Your task to perform on an android device: stop showing notifications on the lock screen Image 0: 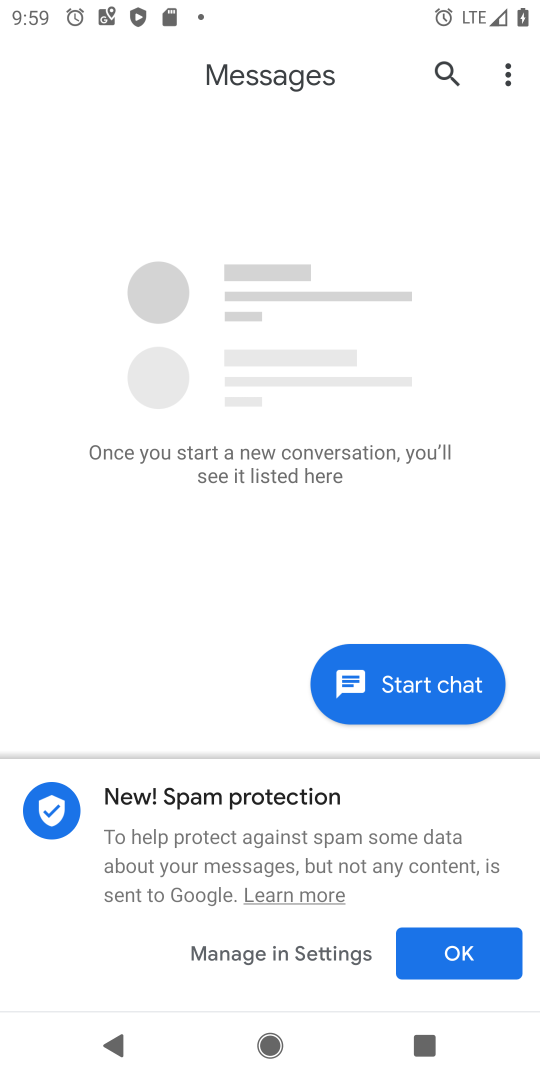
Step 0: press home button
Your task to perform on an android device: stop showing notifications on the lock screen Image 1: 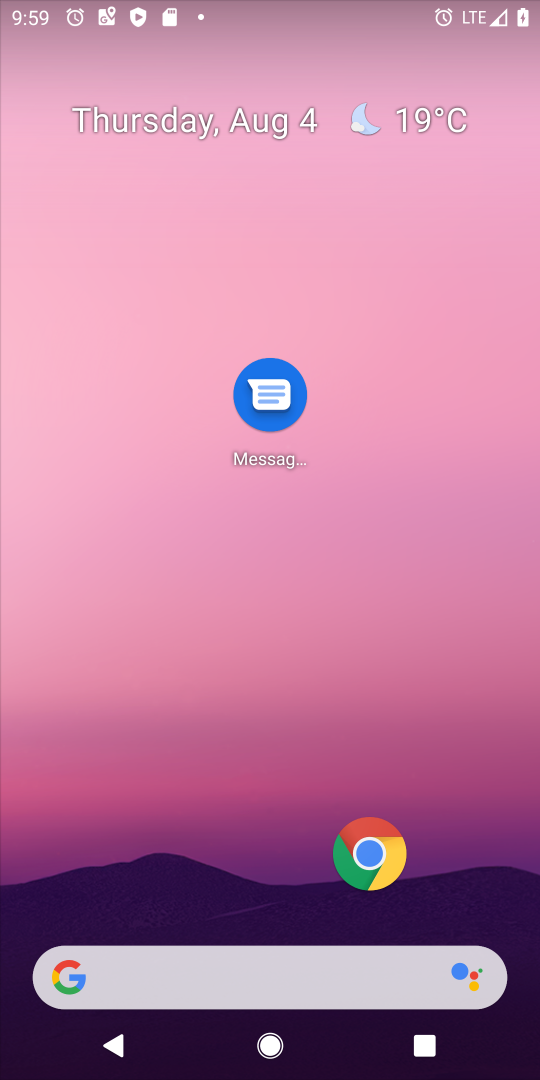
Step 1: drag from (197, 945) to (112, 197)
Your task to perform on an android device: stop showing notifications on the lock screen Image 2: 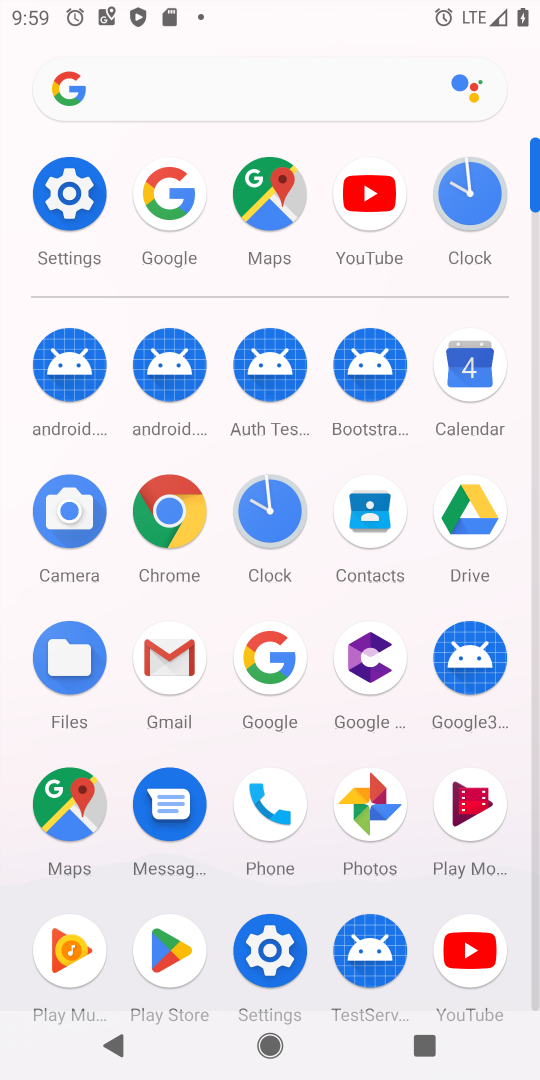
Step 2: click (65, 209)
Your task to perform on an android device: stop showing notifications on the lock screen Image 3: 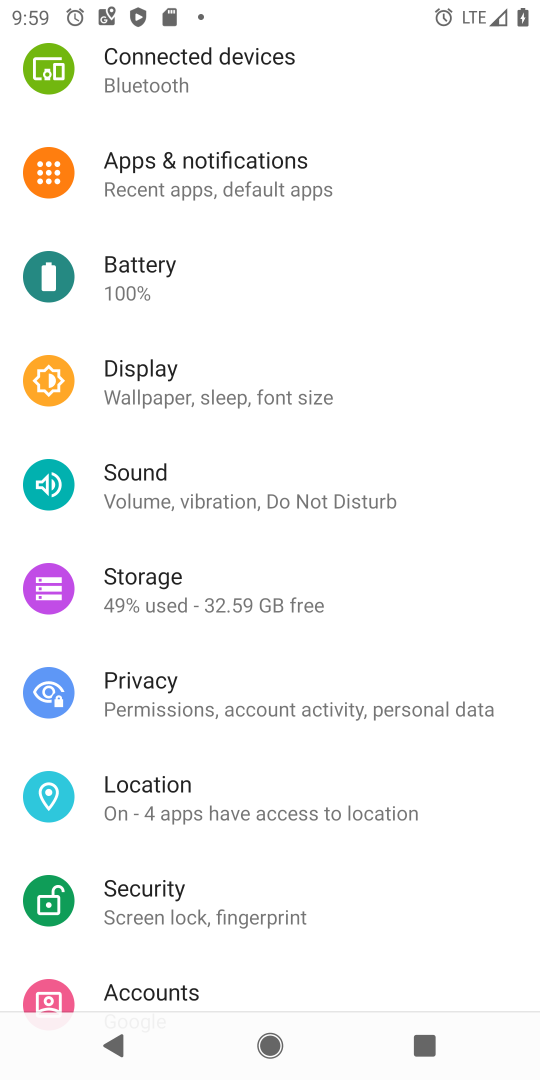
Step 3: click (131, 690)
Your task to perform on an android device: stop showing notifications on the lock screen Image 4: 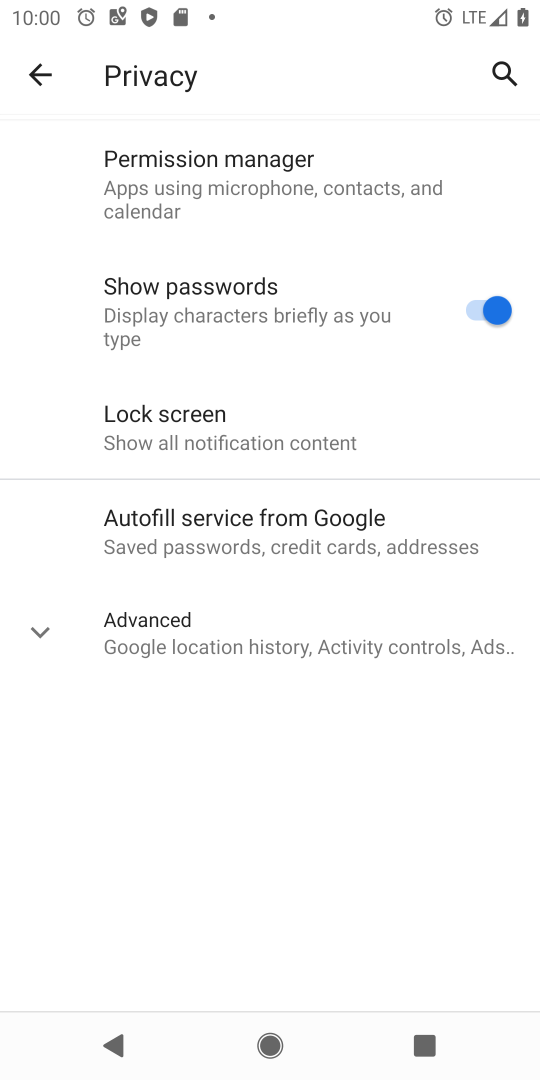
Step 4: click (118, 434)
Your task to perform on an android device: stop showing notifications on the lock screen Image 5: 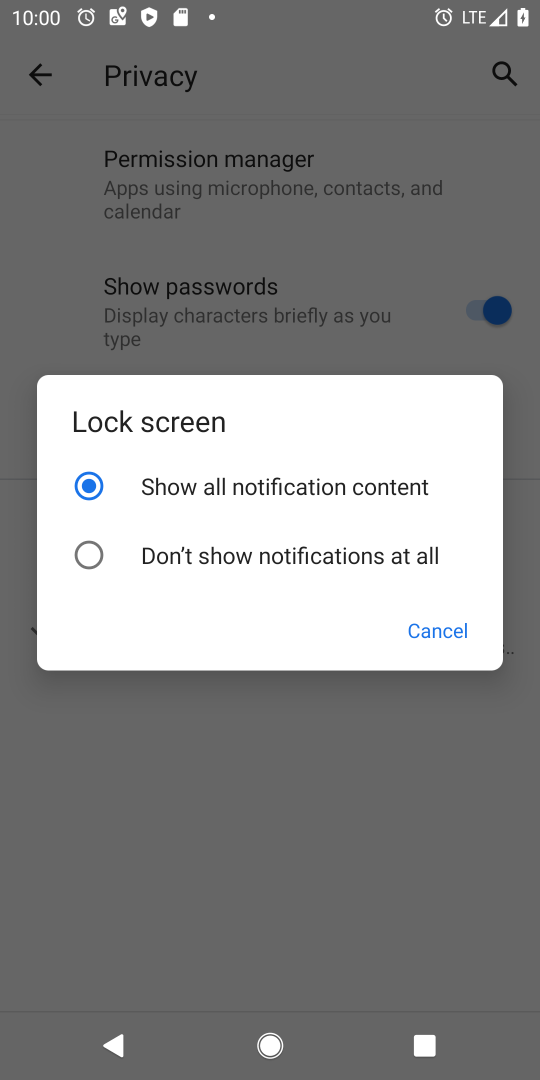
Step 5: click (178, 552)
Your task to perform on an android device: stop showing notifications on the lock screen Image 6: 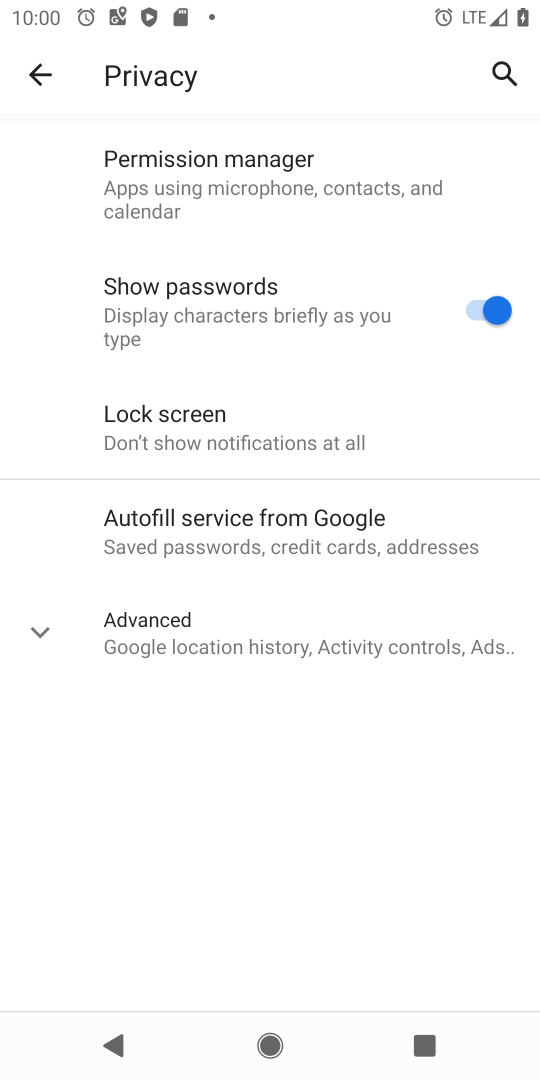
Step 6: task complete